Your task to perform on an android device: toggle priority inbox in the gmail app Image 0: 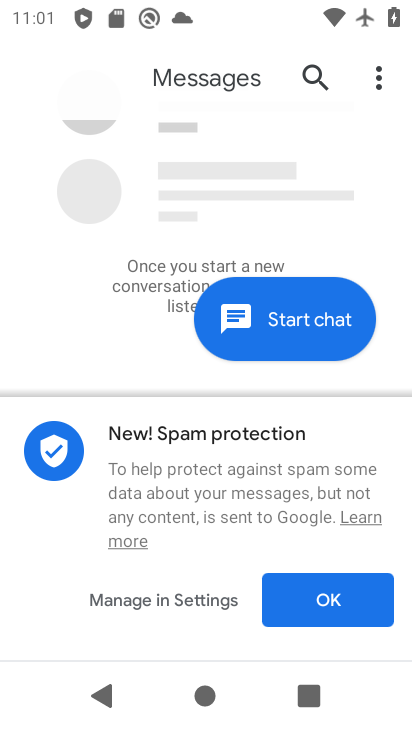
Step 0: press back button
Your task to perform on an android device: toggle priority inbox in the gmail app Image 1: 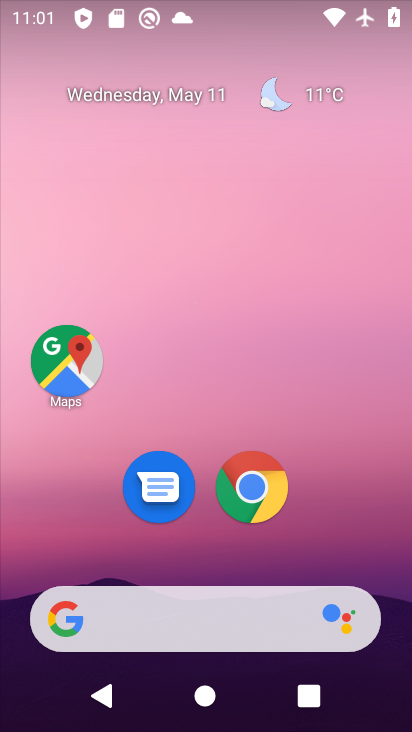
Step 1: drag from (387, 547) to (274, 39)
Your task to perform on an android device: toggle priority inbox in the gmail app Image 2: 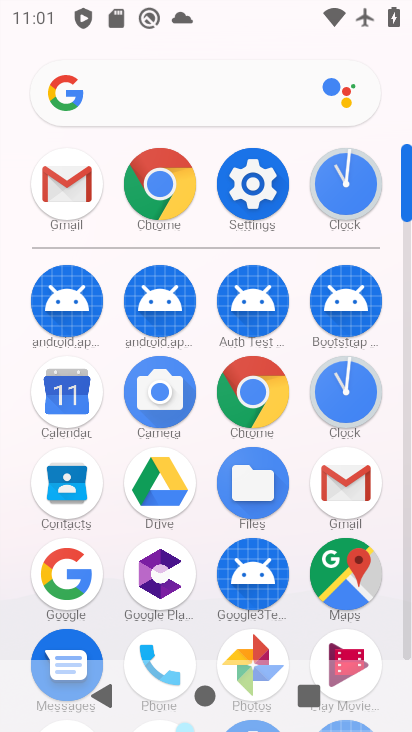
Step 2: click (341, 476)
Your task to perform on an android device: toggle priority inbox in the gmail app Image 3: 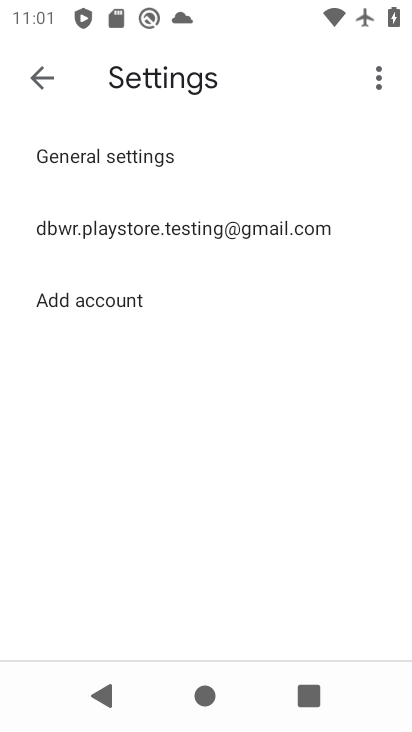
Step 3: click (36, 79)
Your task to perform on an android device: toggle priority inbox in the gmail app Image 4: 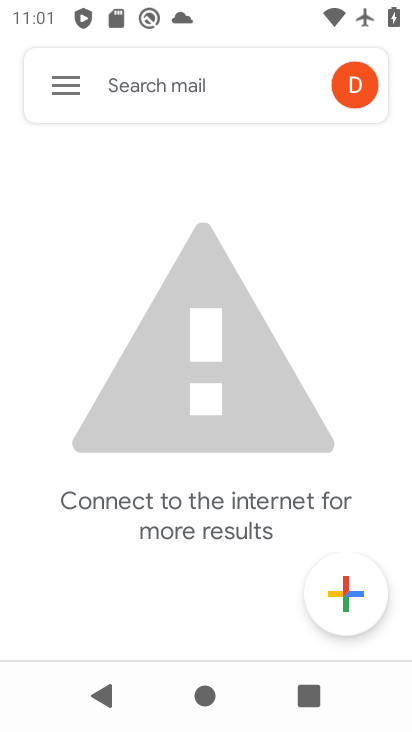
Step 4: click (61, 82)
Your task to perform on an android device: toggle priority inbox in the gmail app Image 5: 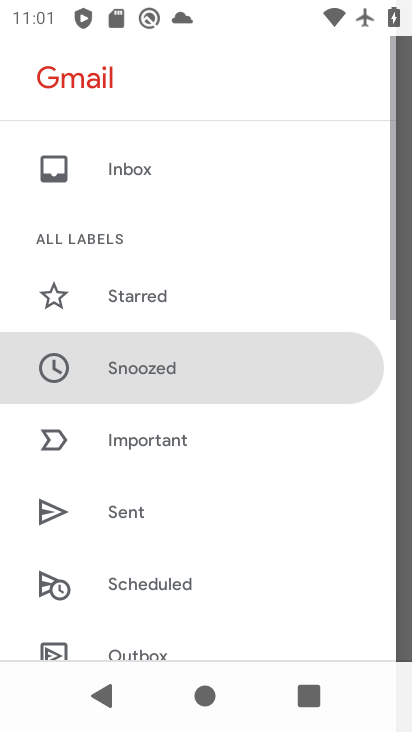
Step 5: drag from (247, 573) to (263, 164)
Your task to perform on an android device: toggle priority inbox in the gmail app Image 6: 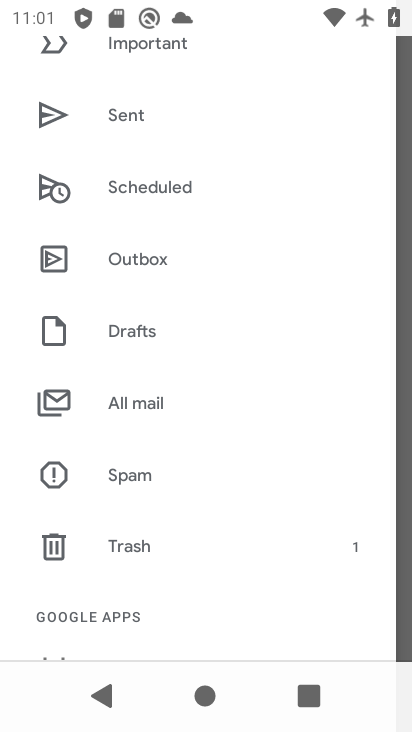
Step 6: drag from (222, 560) to (242, 150)
Your task to perform on an android device: toggle priority inbox in the gmail app Image 7: 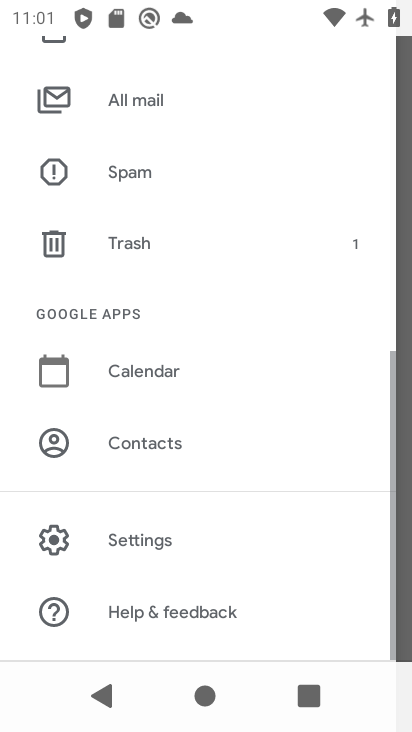
Step 7: click (170, 542)
Your task to perform on an android device: toggle priority inbox in the gmail app Image 8: 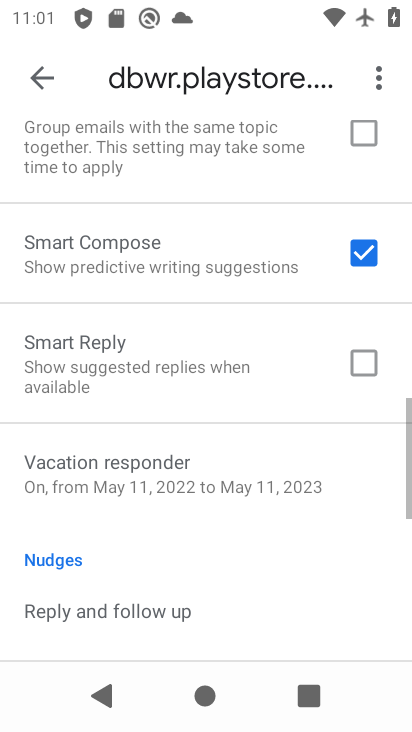
Step 8: drag from (170, 540) to (212, 152)
Your task to perform on an android device: toggle priority inbox in the gmail app Image 9: 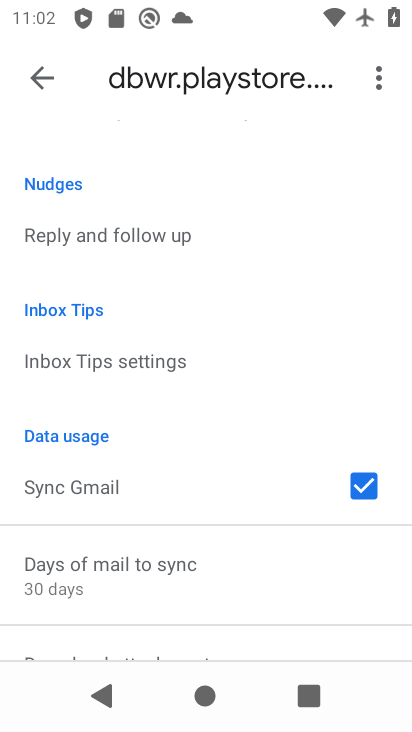
Step 9: drag from (207, 593) to (222, 276)
Your task to perform on an android device: toggle priority inbox in the gmail app Image 10: 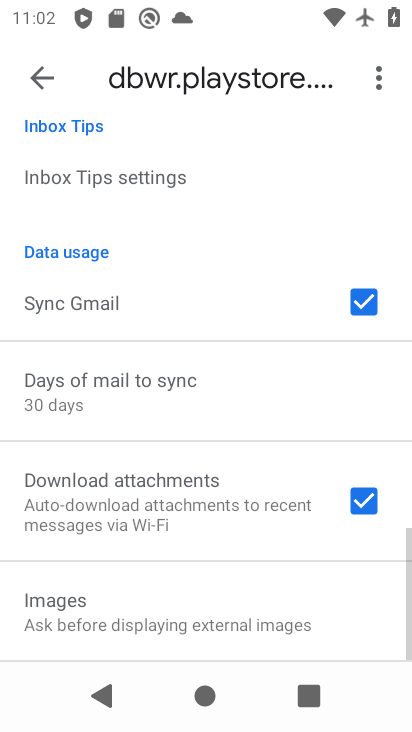
Step 10: drag from (214, 233) to (208, 600)
Your task to perform on an android device: toggle priority inbox in the gmail app Image 11: 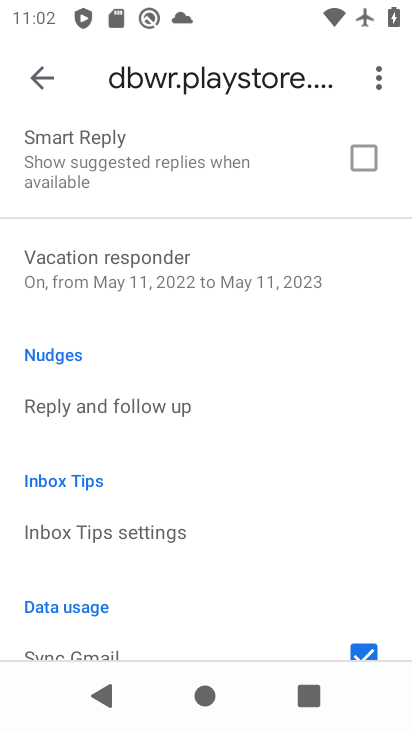
Step 11: drag from (228, 225) to (227, 544)
Your task to perform on an android device: toggle priority inbox in the gmail app Image 12: 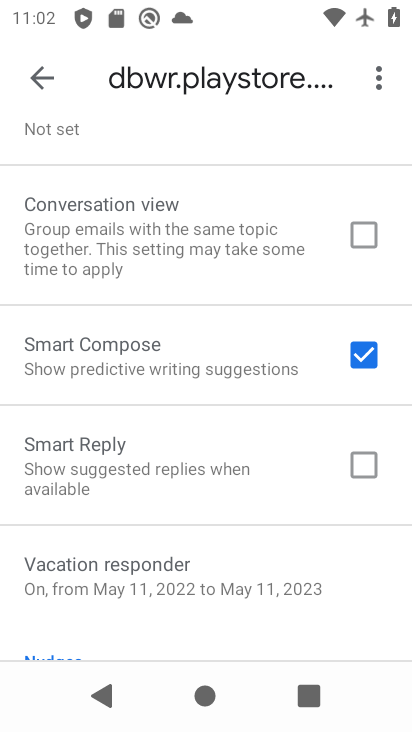
Step 12: drag from (187, 205) to (155, 535)
Your task to perform on an android device: toggle priority inbox in the gmail app Image 13: 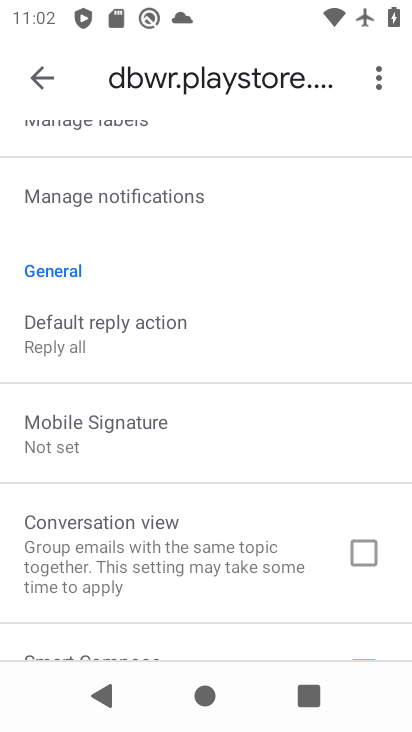
Step 13: drag from (188, 219) to (191, 526)
Your task to perform on an android device: toggle priority inbox in the gmail app Image 14: 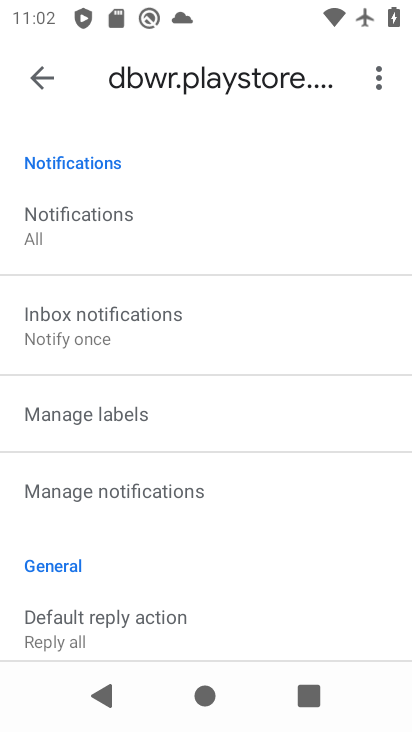
Step 14: drag from (159, 251) to (209, 556)
Your task to perform on an android device: toggle priority inbox in the gmail app Image 15: 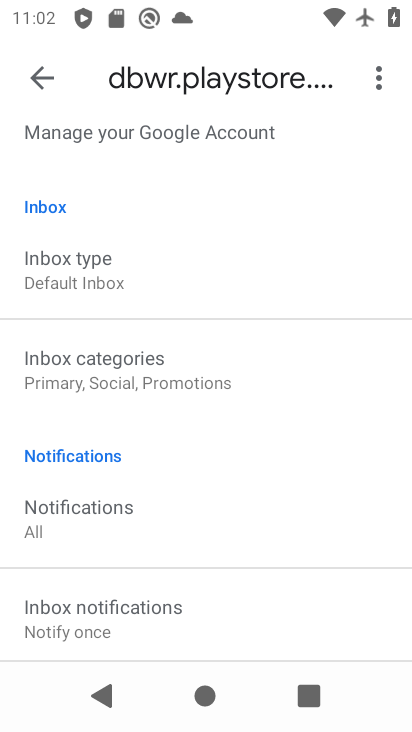
Step 15: click (164, 281)
Your task to perform on an android device: toggle priority inbox in the gmail app Image 16: 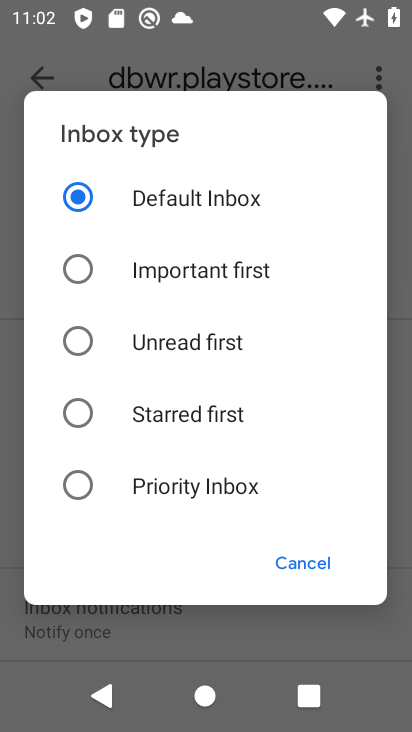
Step 16: click (135, 479)
Your task to perform on an android device: toggle priority inbox in the gmail app Image 17: 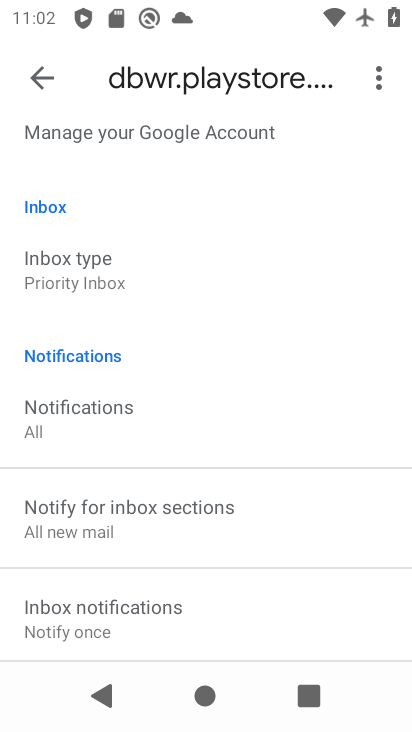
Step 17: task complete